Your task to perform on an android device: check android version Image 0: 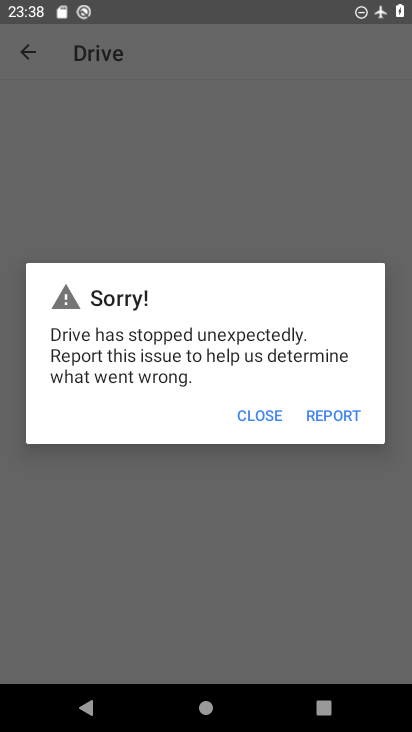
Step 0: press home button
Your task to perform on an android device: check android version Image 1: 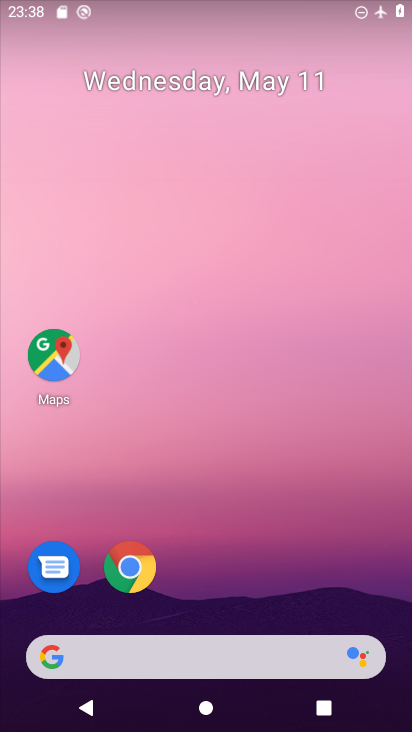
Step 1: drag from (256, 654) to (258, 82)
Your task to perform on an android device: check android version Image 2: 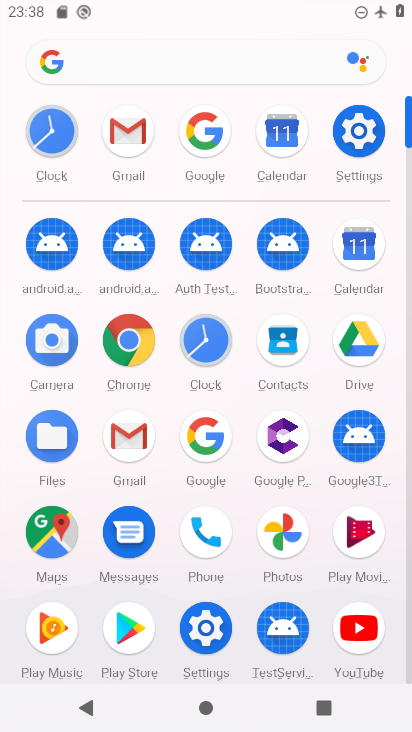
Step 2: click (366, 144)
Your task to perform on an android device: check android version Image 3: 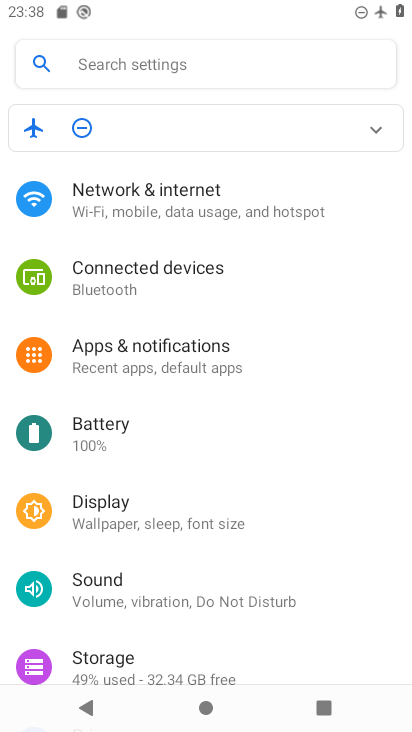
Step 3: drag from (259, 619) to (254, 0)
Your task to perform on an android device: check android version Image 4: 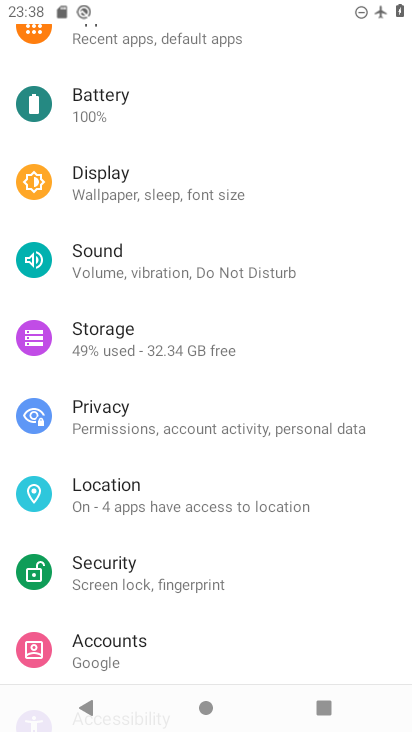
Step 4: drag from (254, 643) to (261, 3)
Your task to perform on an android device: check android version Image 5: 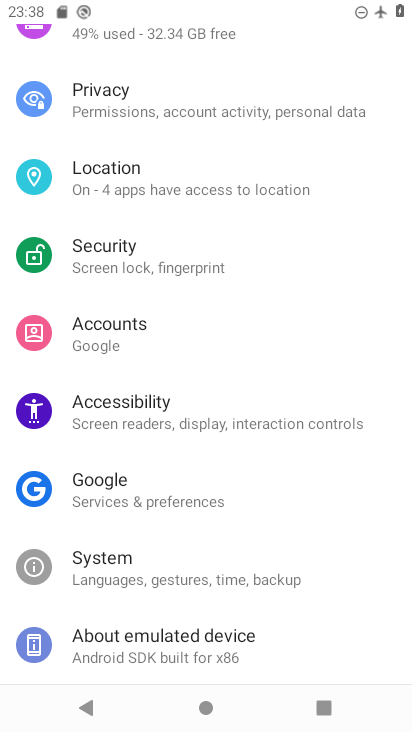
Step 5: drag from (202, 561) to (272, 119)
Your task to perform on an android device: check android version Image 6: 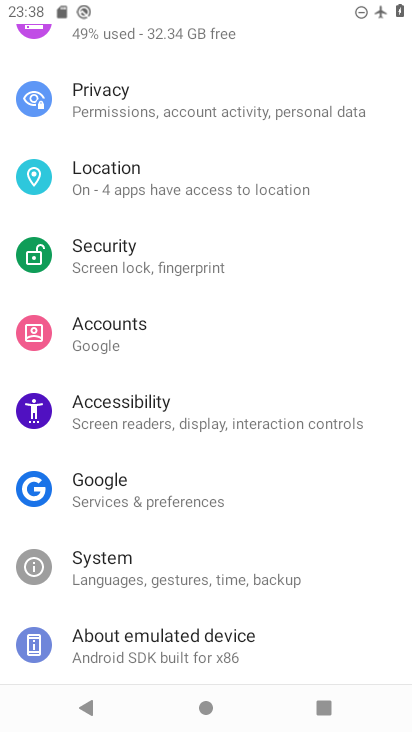
Step 6: click (167, 652)
Your task to perform on an android device: check android version Image 7: 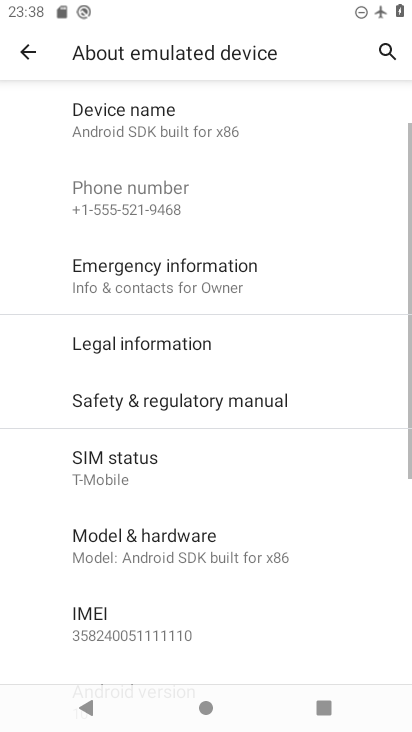
Step 7: task complete